Your task to perform on an android device: Open Chrome and go to the settings page Image 0: 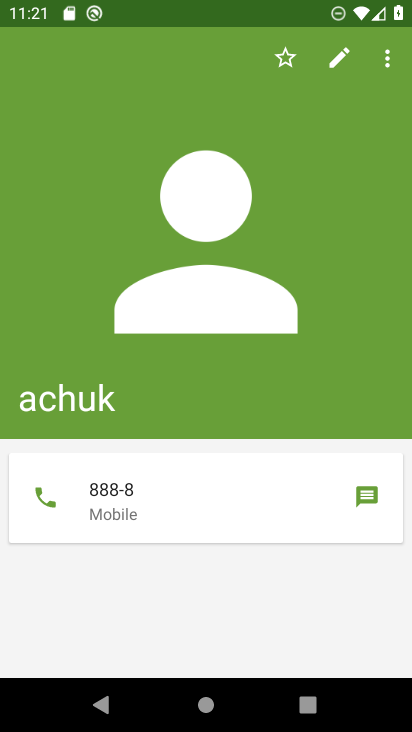
Step 0: press home button
Your task to perform on an android device: Open Chrome and go to the settings page Image 1: 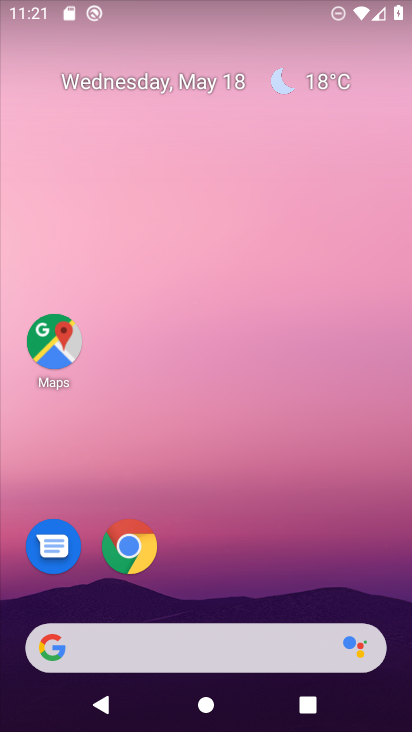
Step 1: click (134, 543)
Your task to perform on an android device: Open Chrome and go to the settings page Image 2: 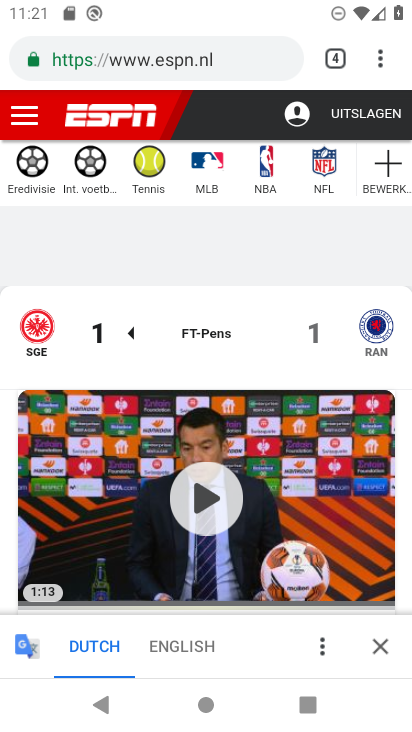
Step 2: click (380, 63)
Your task to perform on an android device: Open Chrome and go to the settings page Image 3: 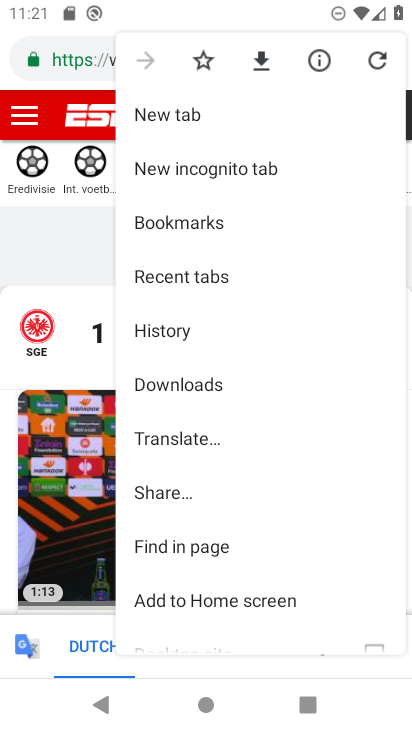
Step 3: drag from (190, 573) to (187, 385)
Your task to perform on an android device: Open Chrome and go to the settings page Image 4: 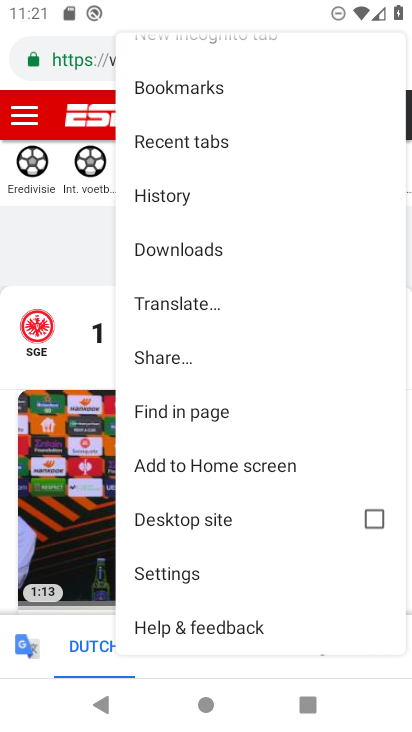
Step 4: click (180, 573)
Your task to perform on an android device: Open Chrome and go to the settings page Image 5: 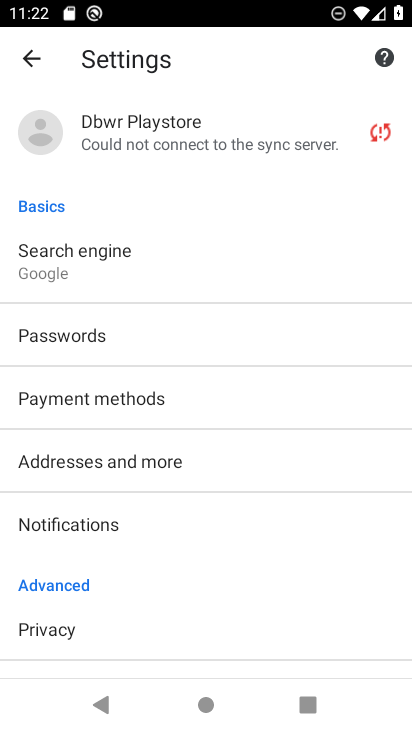
Step 5: task complete